Your task to perform on an android device: change the clock style Image 0: 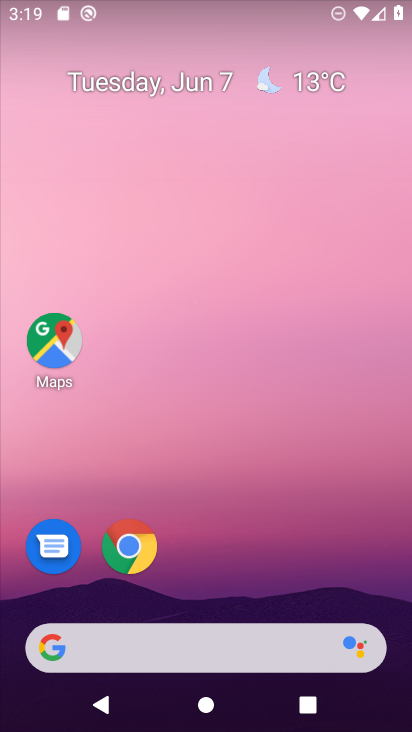
Step 0: drag from (12, 656) to (231, 228)
Your task to perform on an android device: change the clock style Image 1: 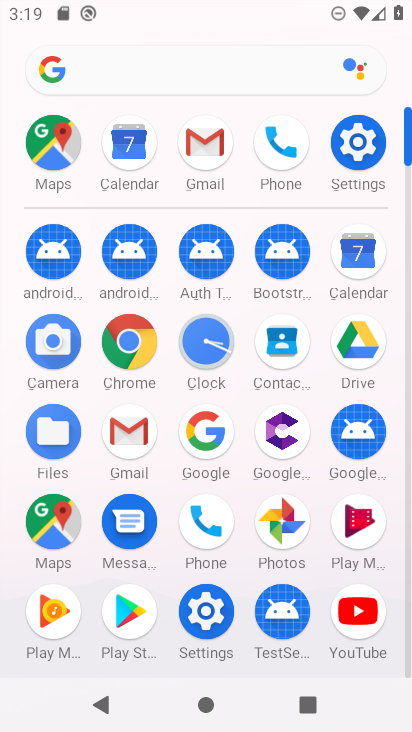
Step 1: click (199, 339)
Your task to perform on an android device: change the clock style Image 2: 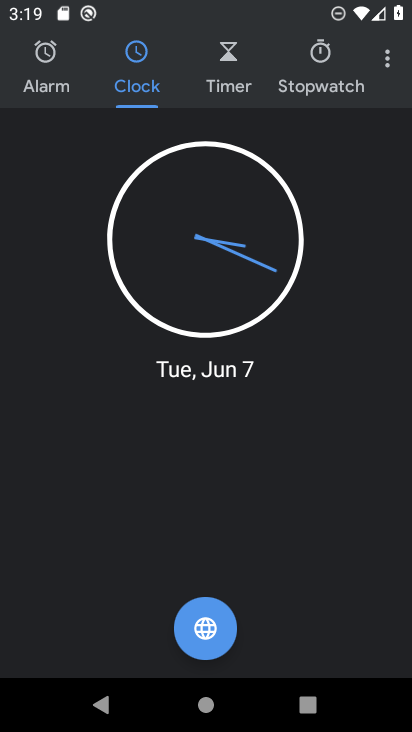
Step 2: click (386, 64)
Your task to perform on an android device: change the clock style Image 3: 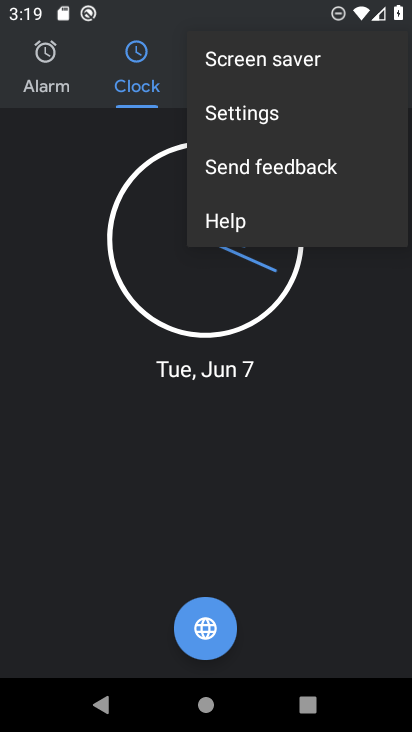
Step 3: click (297, 111)
Your task to perform on an android device: change the clock style Image 4: 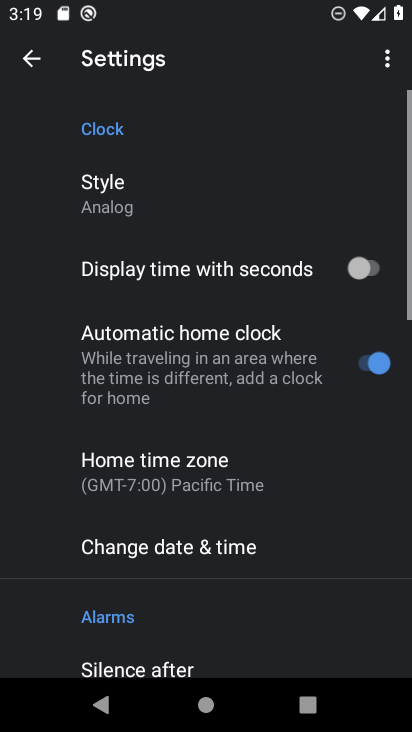
Step 4: click (116, 190)
Your task to perform on an android device: change the clock style Image 5: 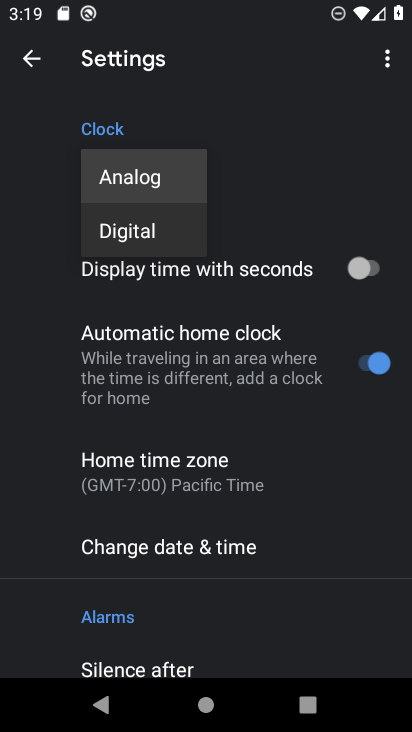
Step 5: click (128, 226)
Your task to perform on an android device: change the clock style Image 6: 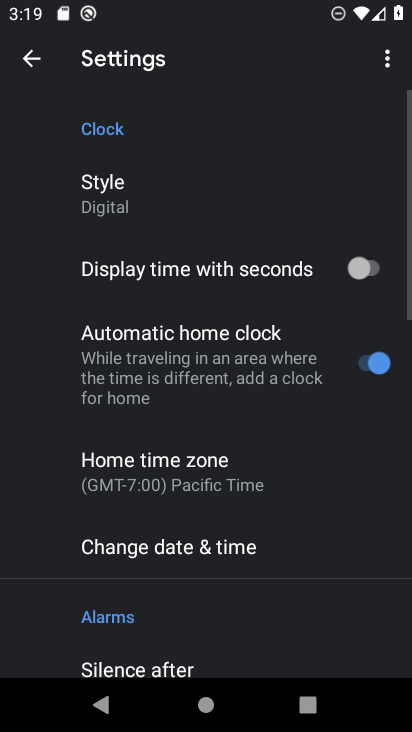
Step 6: task complete